Your task to perform on an android device: Check the weather Image 0: 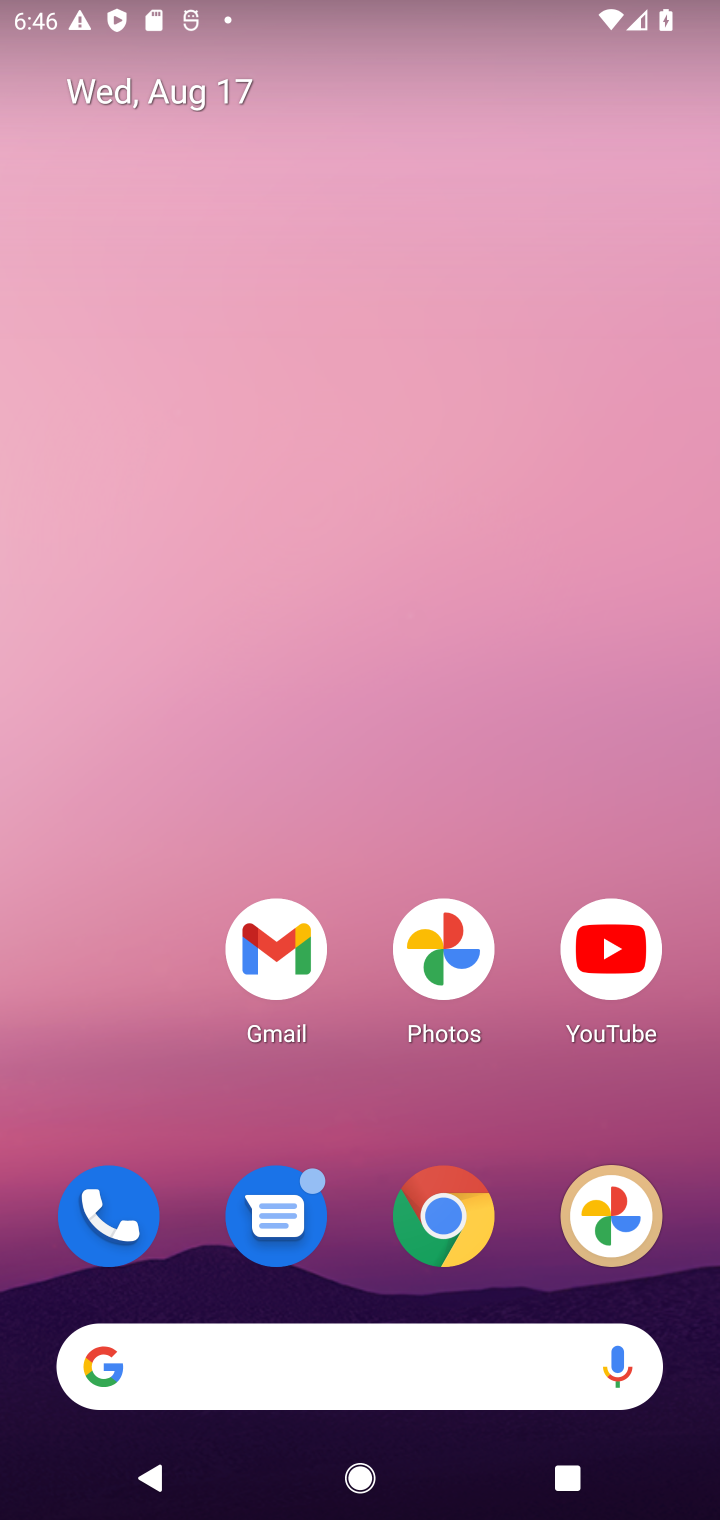
Step 0: drag from (496, 1189) to (526, 22)
Your task to perform on an android device: Check the weather Image 1: 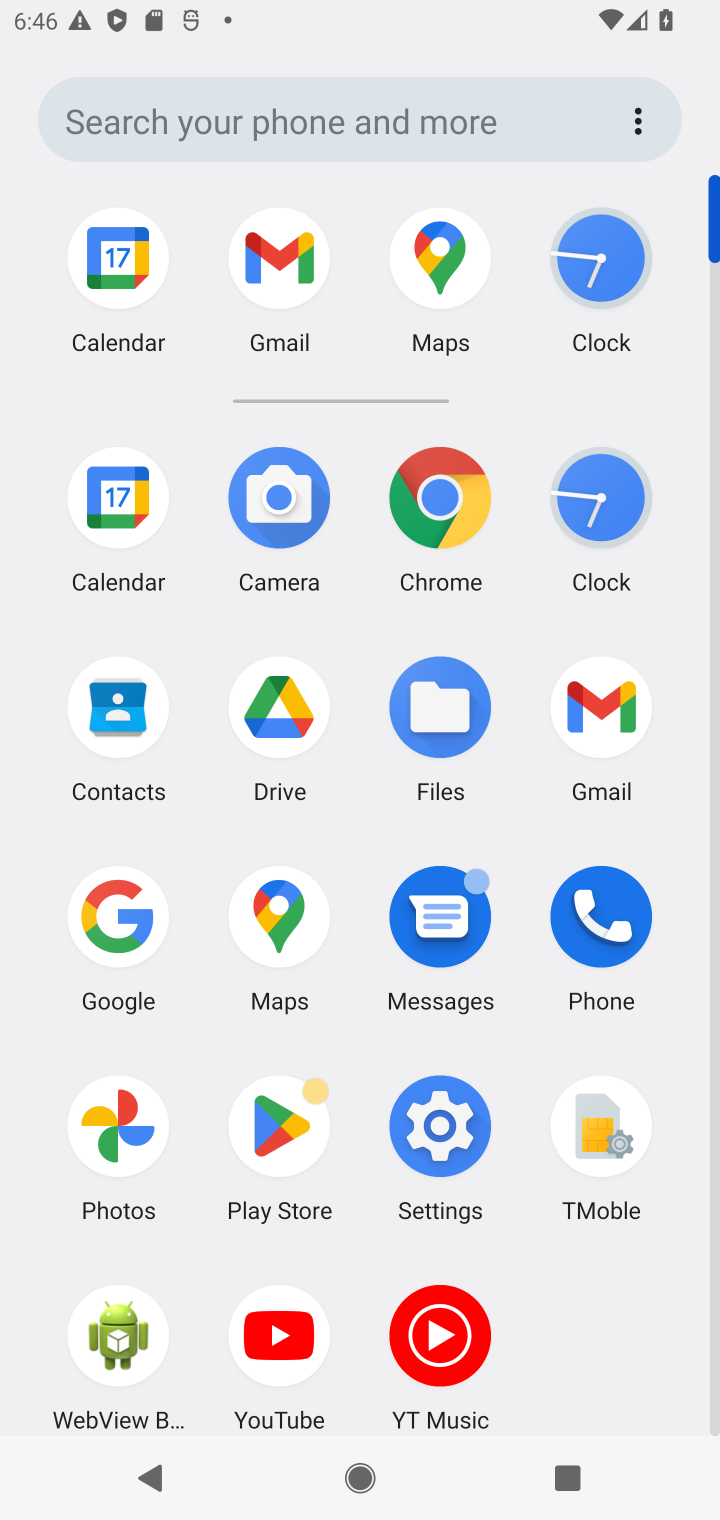
Step 1: click (461, 485)
Your task to perform on an android device: Check the weather Image 2: 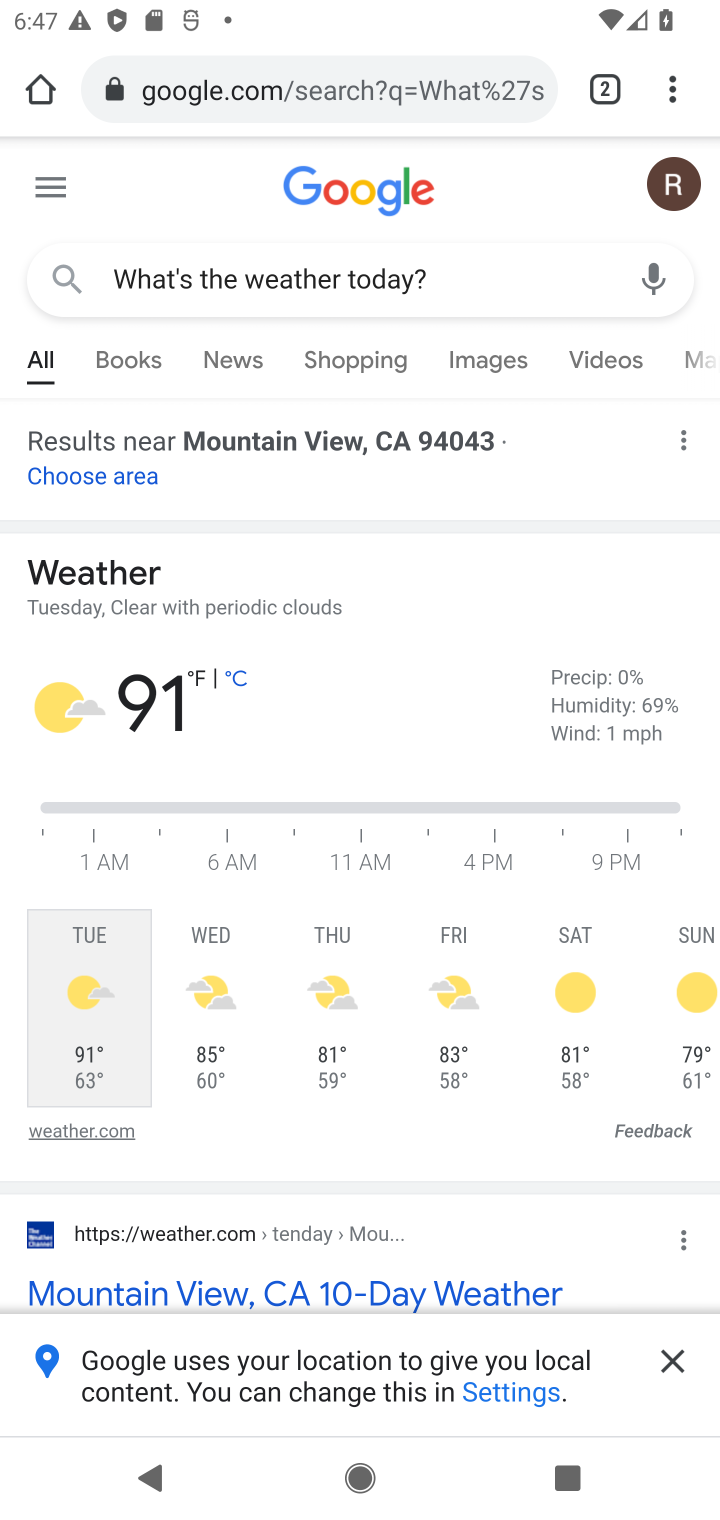
Step 2: task complete